Your task to perform on an android device: toggle pop-ups in chrome Image 0: 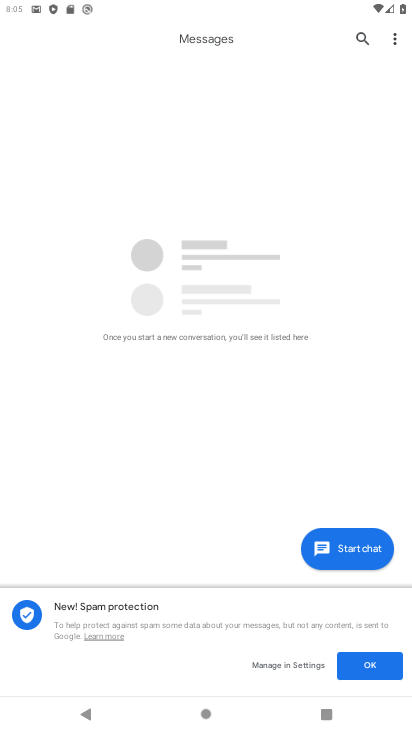
Step 0: press home button
Your task to perform on an android device: toggle pop-ups in chrome Image 1: 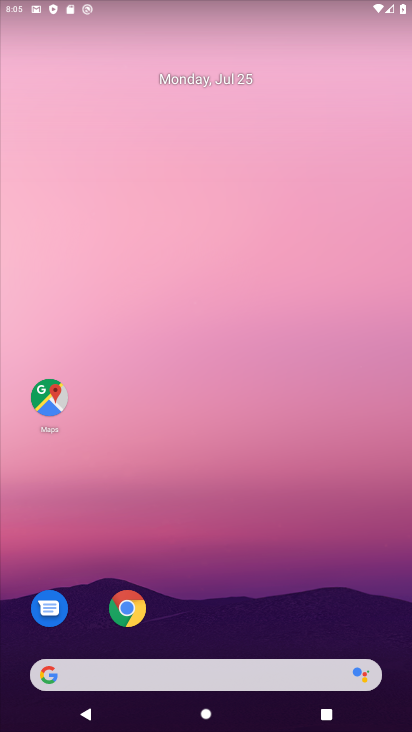
Step 1: click (130, 604)
Your task to perform on an android device: toggle pop-ups in chrome Image 2: 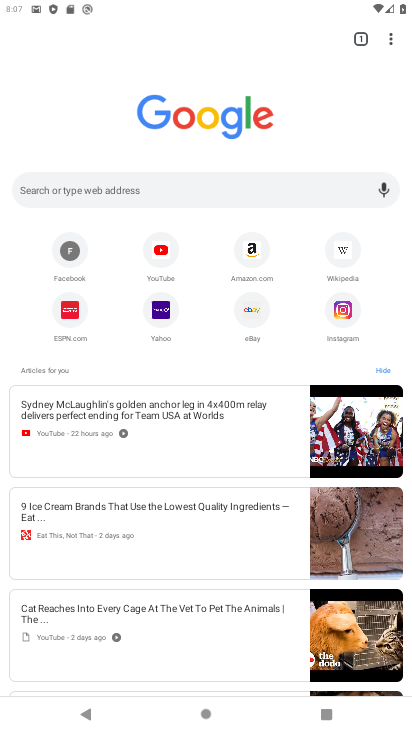
Step 2: click (394, 39)
Your task to perform on an android device: toggle pop-ups in chrome Image 3: 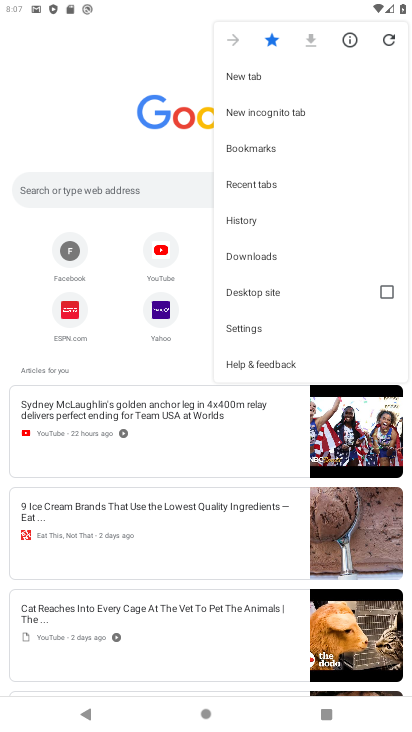
Step 3: click (244, 326)
Your task to perform on an android device: toggle pop-ups in chrome Image 4: 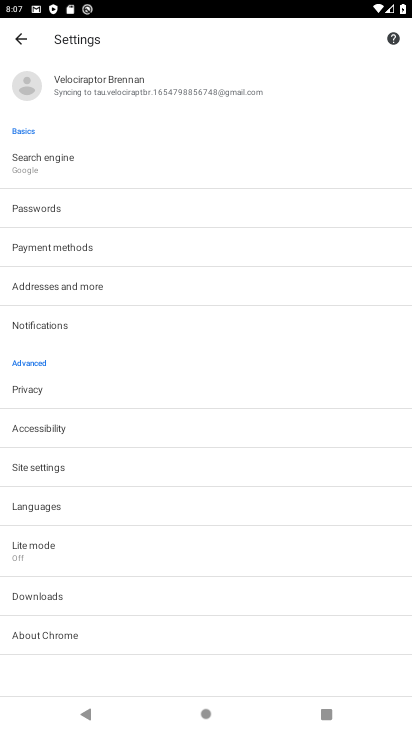
Step 4: click (53, 473)
Your task to perform on an android device: toggle pop-ups in chrome Image 5: 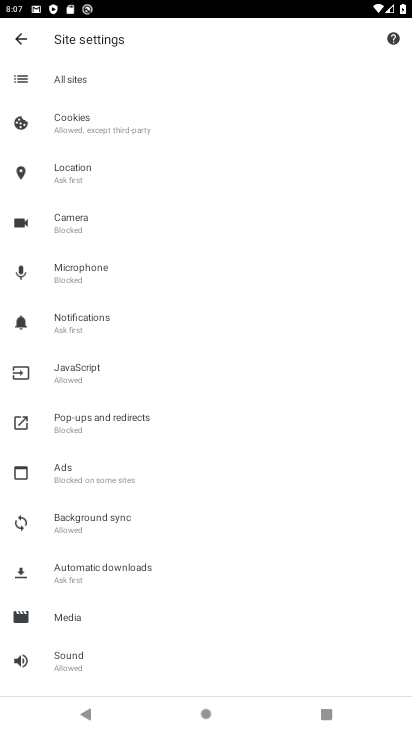
Step 5: click (92, 418)
Your task to perform on an android device: toggle pop-ups in chrome Image 6: 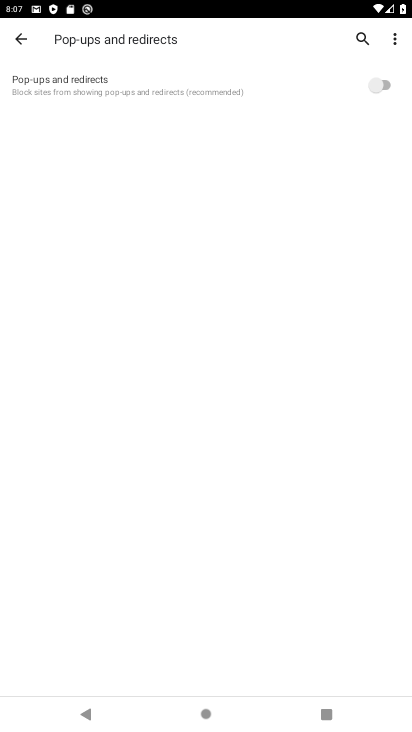
Step 6: click (383, 89)
Your task to perform on an android device: toggle pop-ups in chrome Image 7: 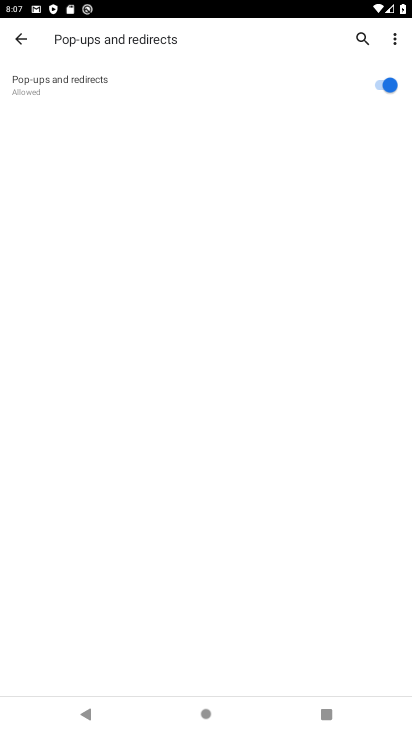
Step 7: task complete